Your task to perform on an android device: Go to Google Image 0: 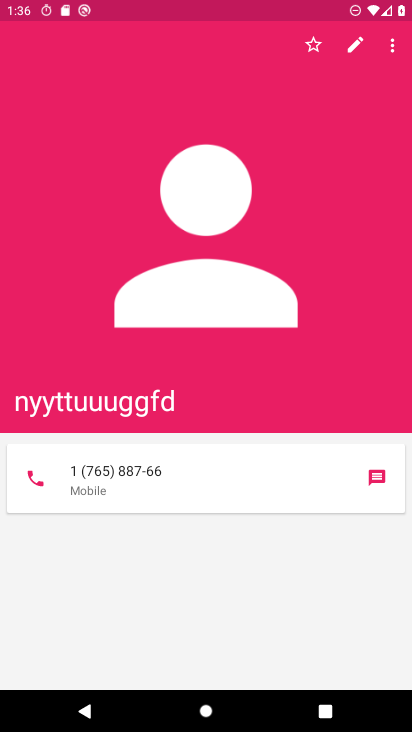
Step 0: press home button
Your task to perform on an android device: Go to Google Image 1: 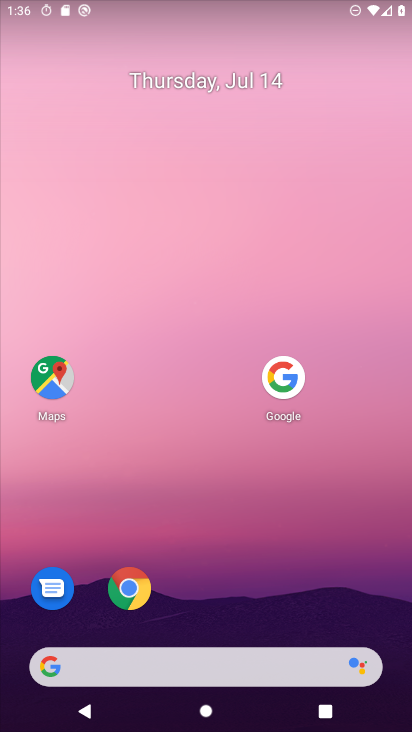
Step 1: click (287, 382)
Your task to perform on an android device: Go to Google Image 2: 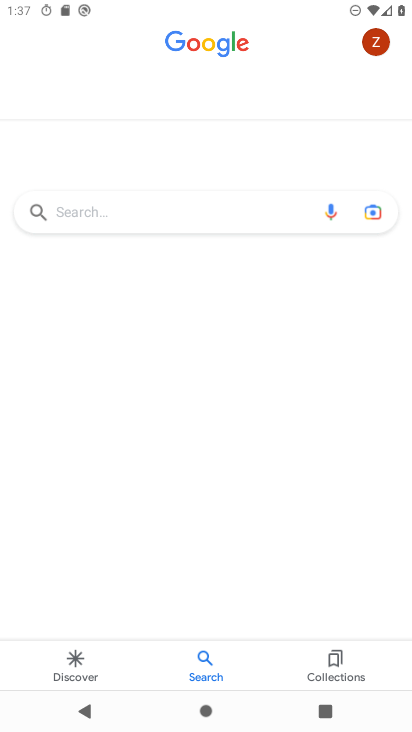
Step 2: task complete